Your task to perform on an android device: clear all cookies in the chrome app Image 0: 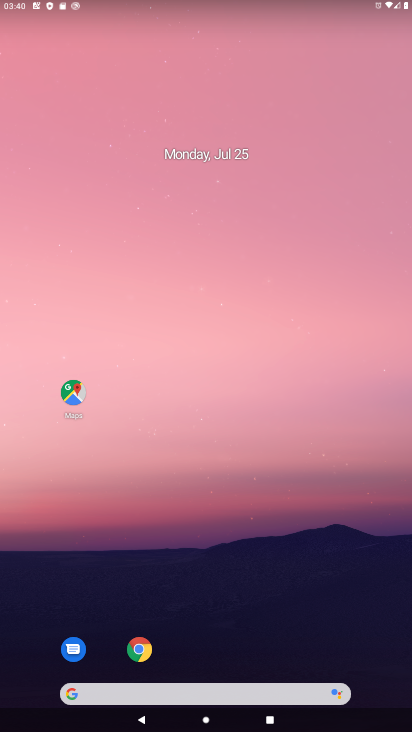
Step 0: click (140, 650)
Your task to perform on an android device: clear all cookies in the chrome app Image 1: 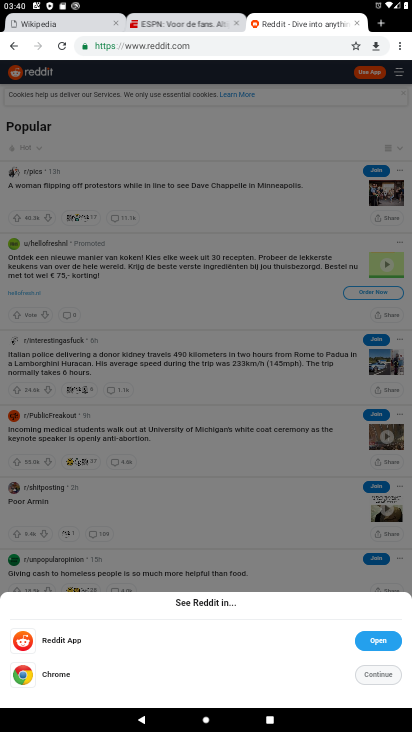
Step 1: click (401, 50)
Your task to perform on an android device: clear all cookies in the chrome app Image 2: 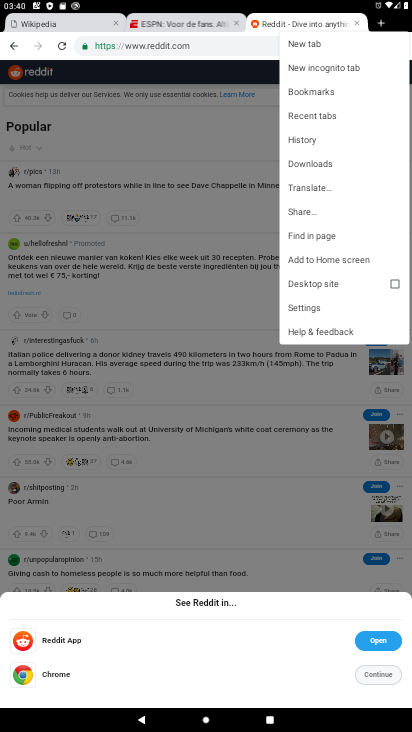
Step 2: click (308, 138)
Your task to perform on an android device: clear all cookies in the chrome app Image 3: 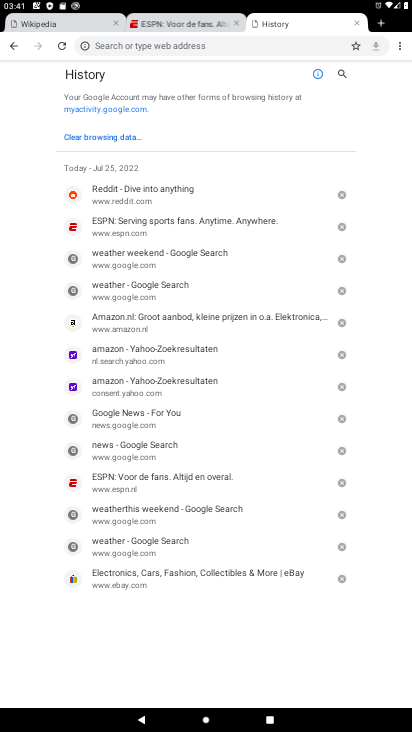
Step 3: click (101, 136)
Your task to perform on an android device: clear all cookies in the chrome app Image 4: 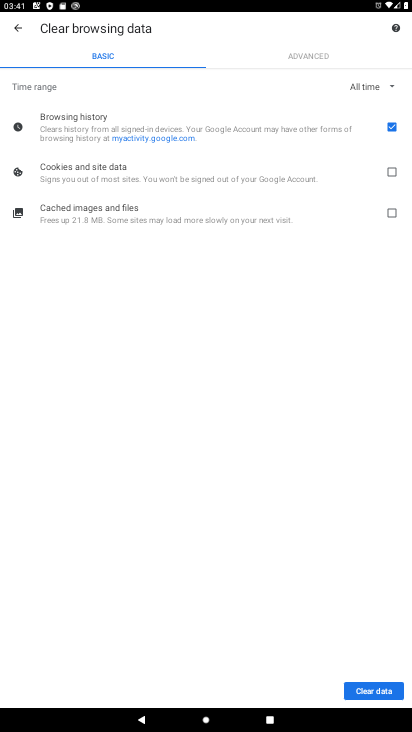
Step 4: click (394, 170)
Your task to perform on an android device: clear all cookies in the chrome app Image 5: 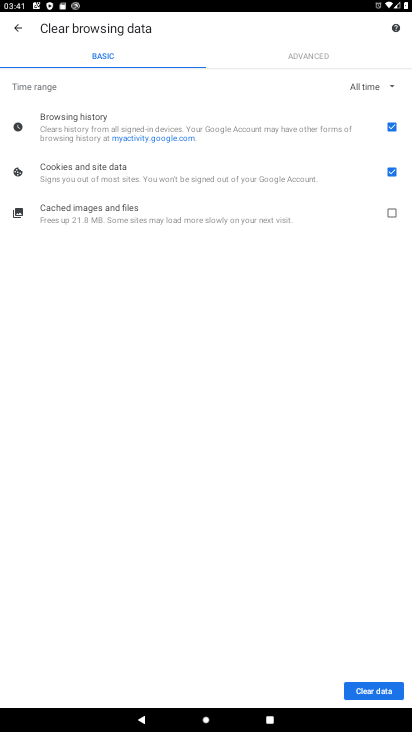
Step 5: click (389, 124)
Your task to perform on an android device: clear all cookies in the chrome app Image 6: 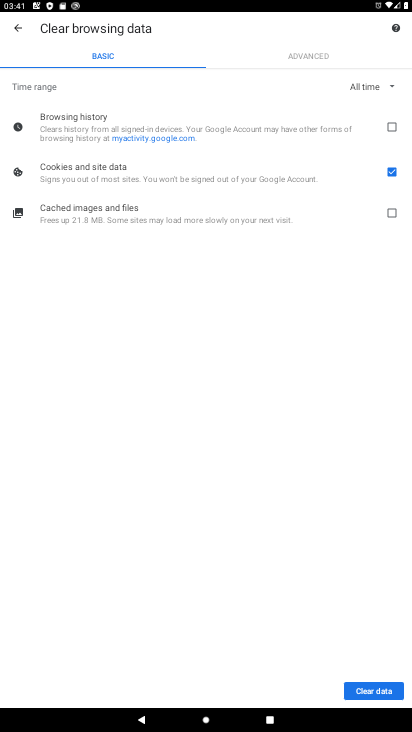
Step 6: click (377, 689)
Your task to perform on an android device: clear all cookies in the chrome app Image 7: 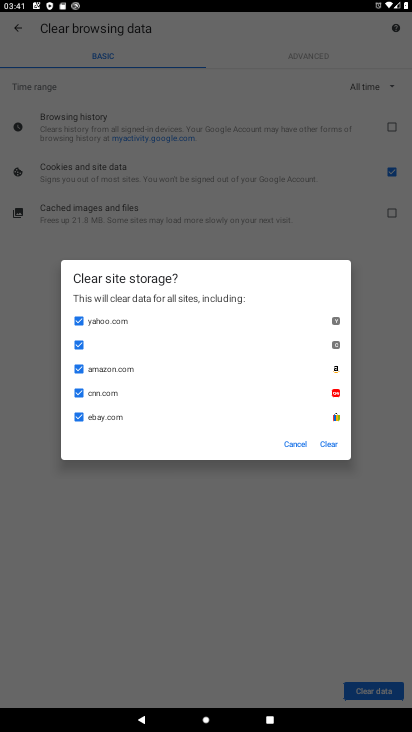
Step 7: click (323, 444)
Your task to perform on an android device: clear all cookies in the chrome app Image 8: 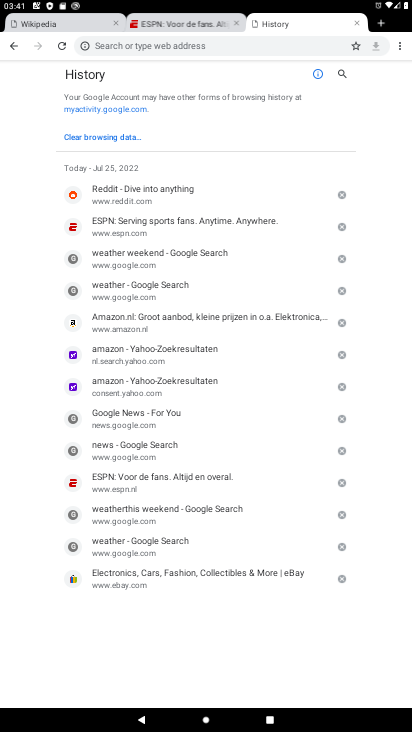
Step 8: task complete